Your task to perform on an android device: visit the assistant section in the google photos Image 0: 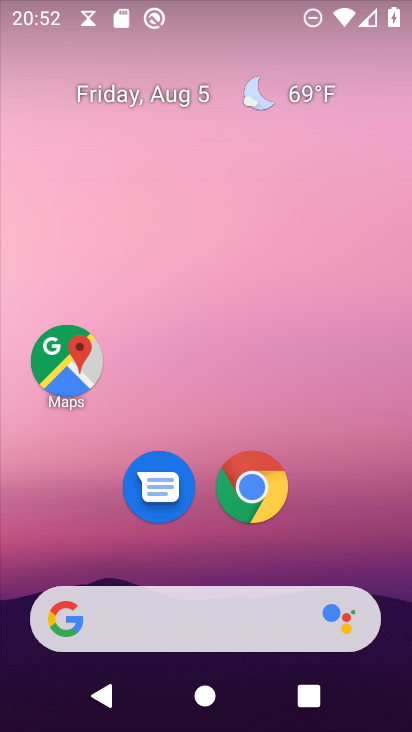
Step 0: drag from (230, 617) to (363, 4)
Your task to perform on an android device: visit the assistant section in the google photos Image 1: 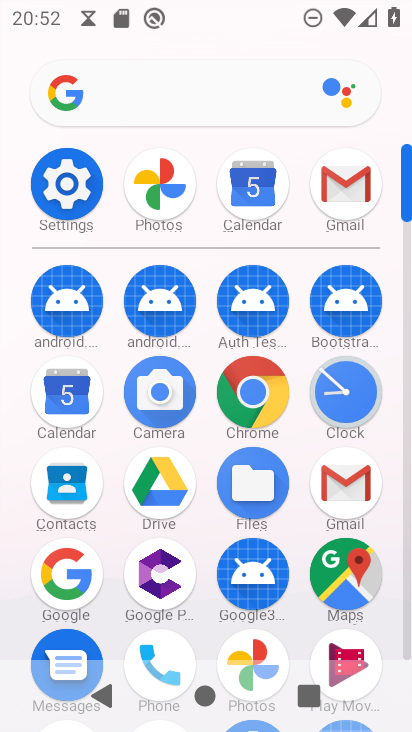
Step 1: click (161, 191)
Your task to perform on an android device: visit the assistant section in the google photos Image 2: 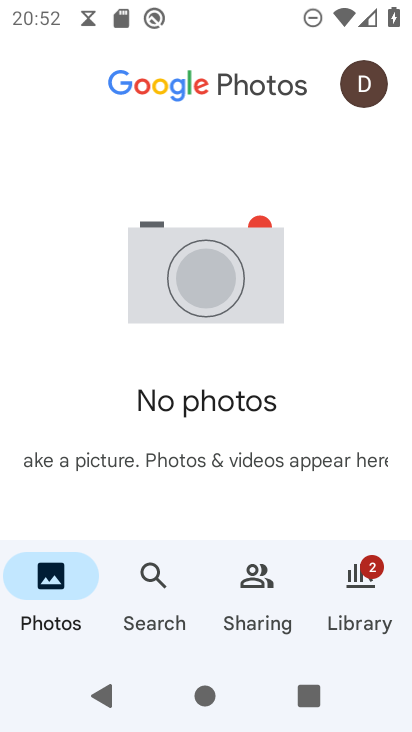
Step 2: click (272, 585)
Your task to perform on an android device: visit the assistant section in the google photos Image 3: 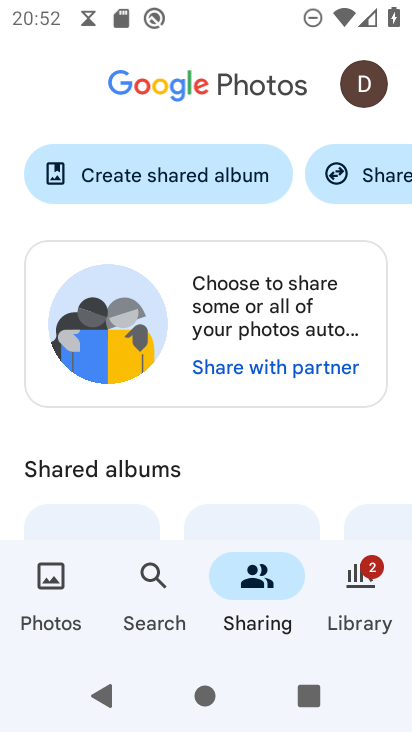
Step 3: click (153, 605)
Your task to perform on an android device: visit the assistant section in the google photos Image 4: 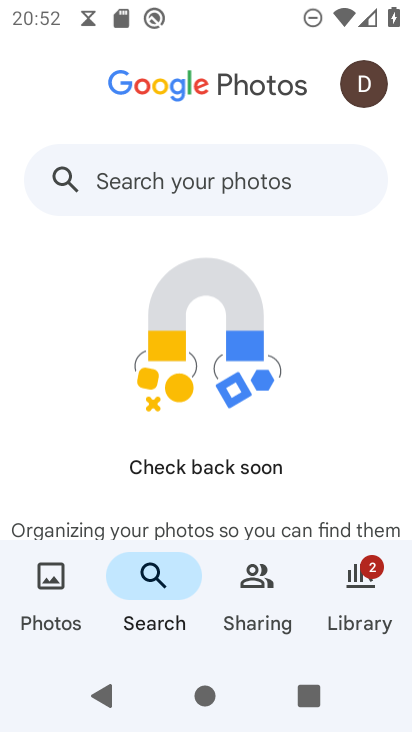
Step 4: task complete